Your task to perform on an android device: star an email in the gmail app Image 0: 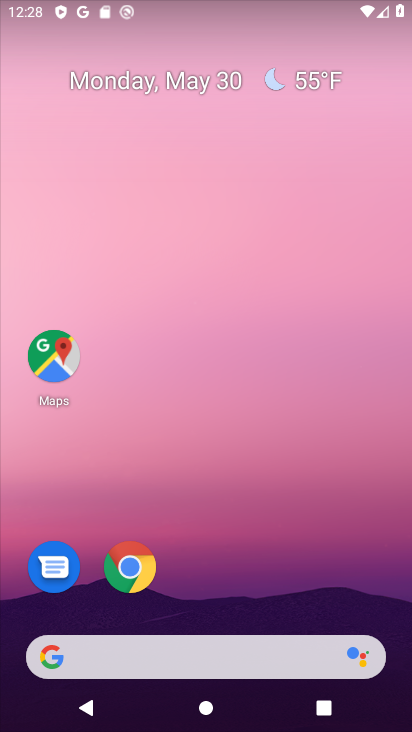
Step 0: press home button
Your task to perform on an android device: star an email in the gmail app Image 1: 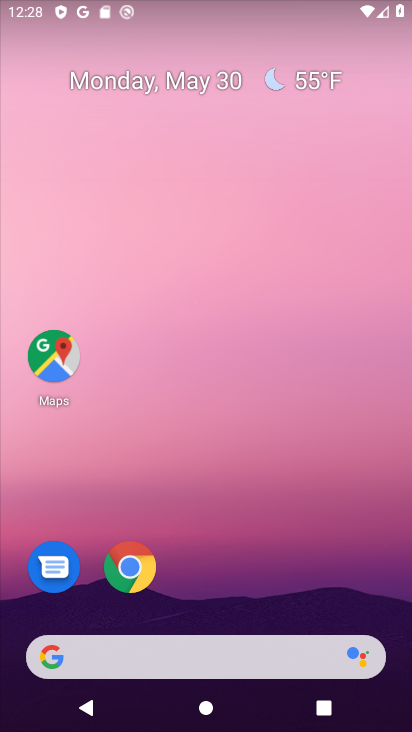
Step 1: drag from (236, 399) to (275, 92)
Your task to perform on an android device: star an email in the gmail app Image 2: 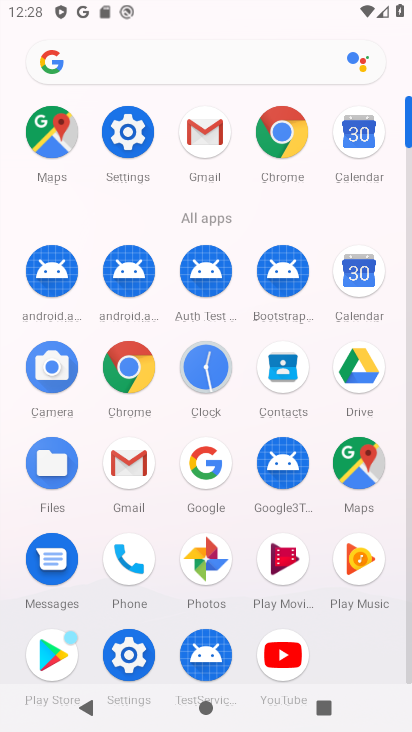
Step 2: click (130, 456)
Your task to perform on an android device: star an email in the gmail app Image 3: 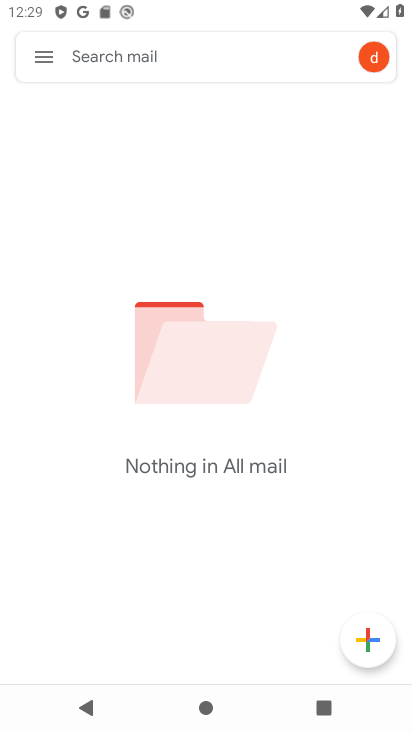
Step 3: task complete